Your task to perform on an android device: What's on my calendar tomorrow? Image 0: 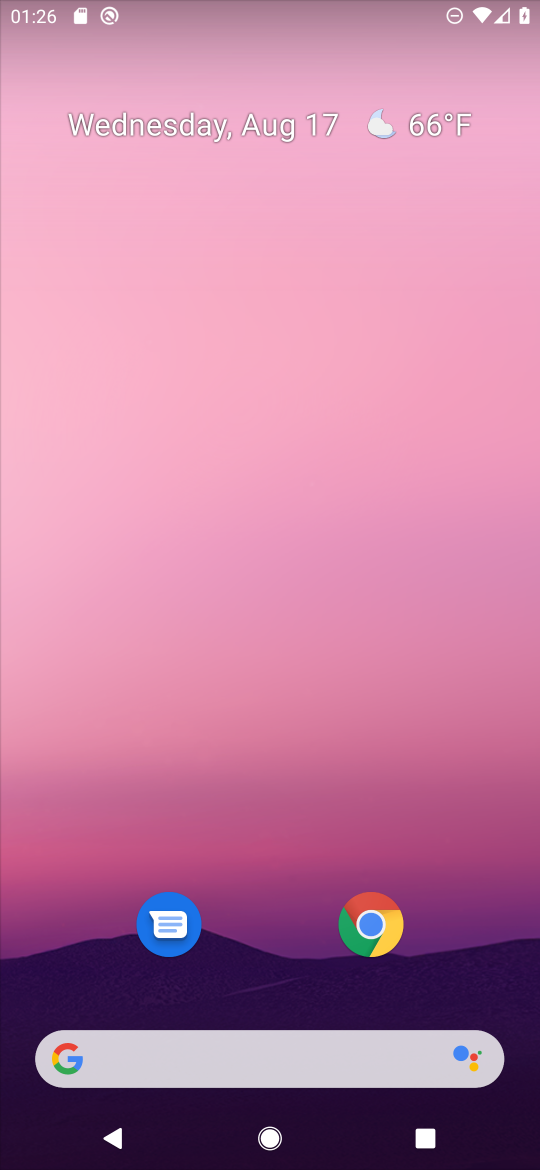
Step 0: click (195, 124)
Your task to perform on an android device: What's on my calendar tomorrow? Image 1: 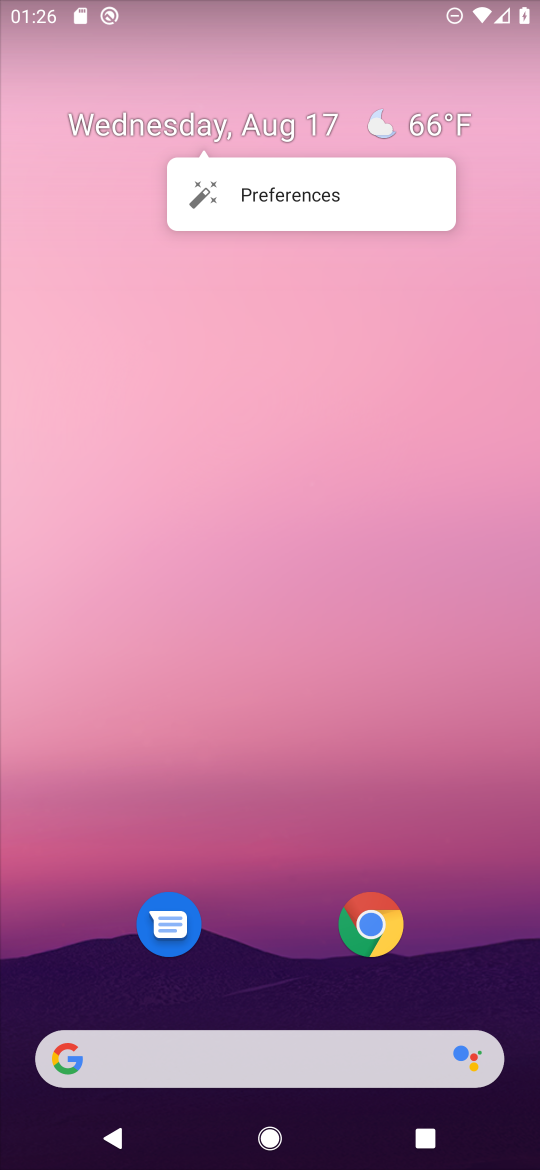
Step 1: click (54, 108)
Your task to perform on an android device: What's on my calendar tomorrow? Image 2: 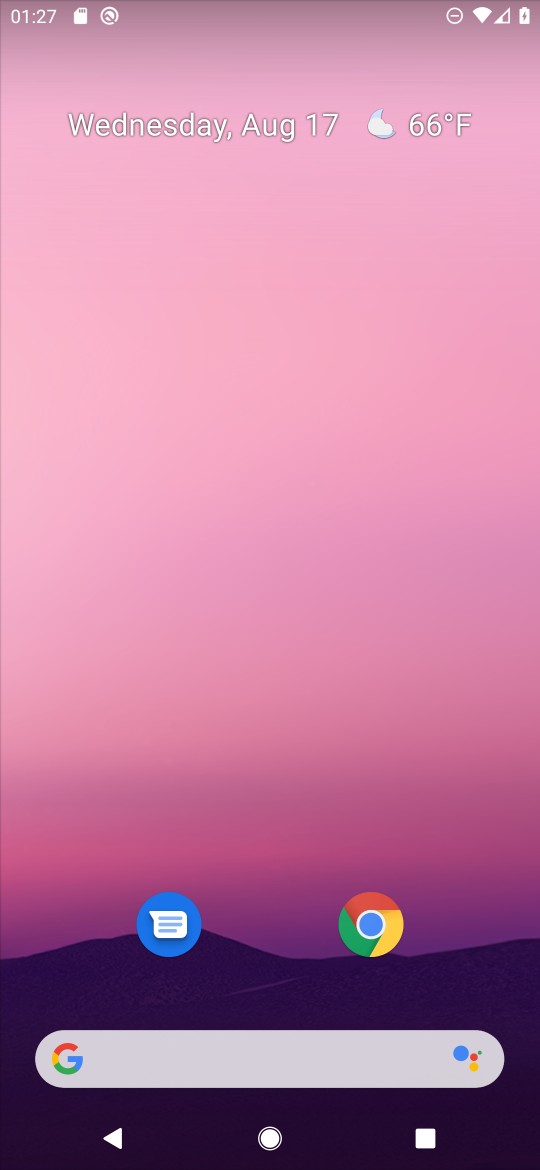
Step 2: click (143, 127)
Your task to perform on an android device: What's on my calendar tomorrow? Image 3: 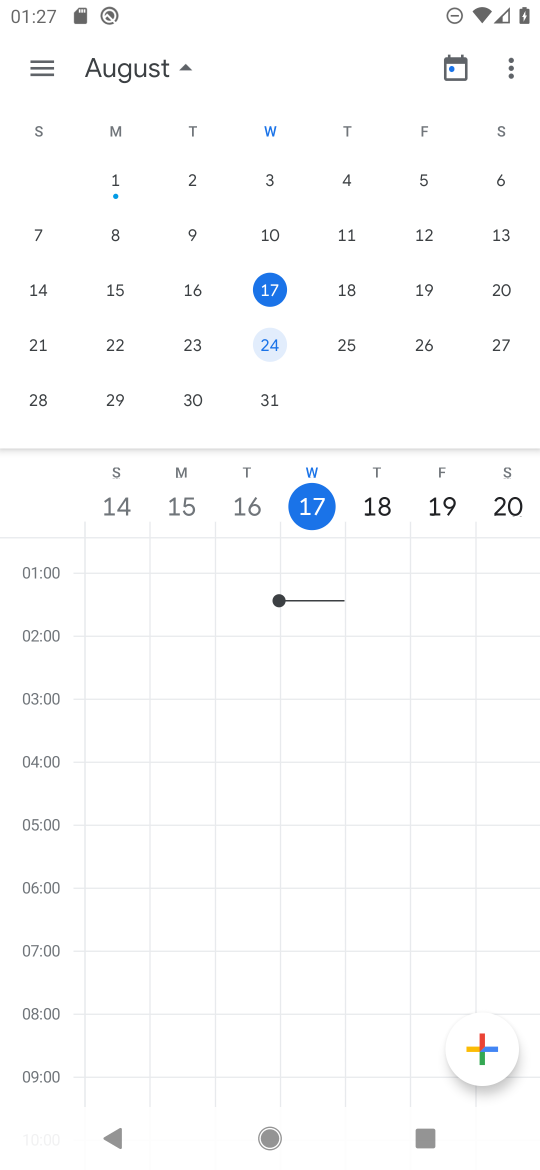
Step 3: click (341, 287)
Your task to perform on an android device: What's on my calendar tomorrow? Image 4: 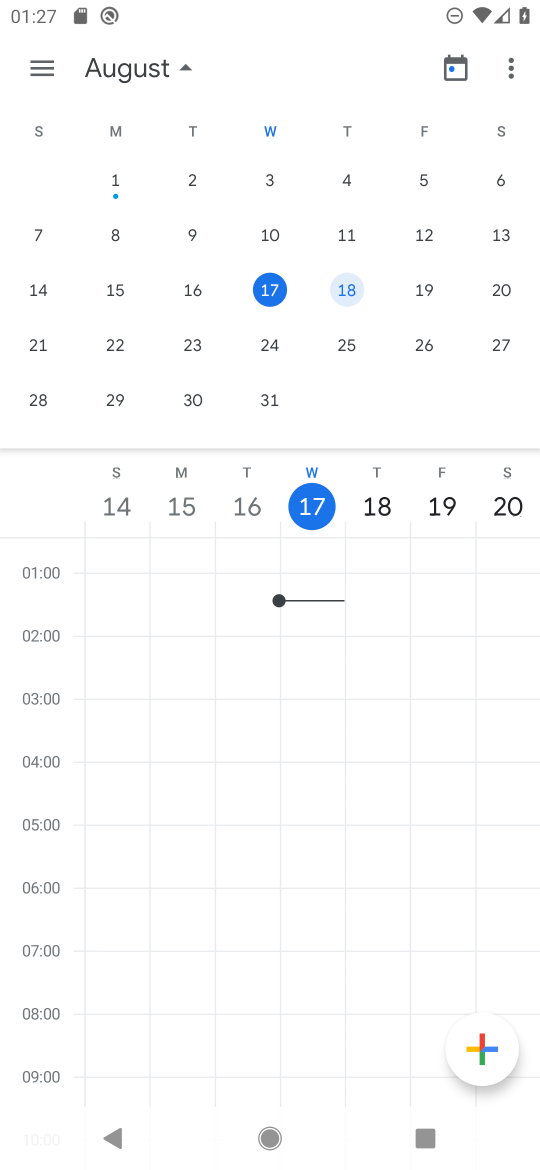
Step 4: task complete